Your task to perform on an android device: allow cookies in the chrome app Image 0: 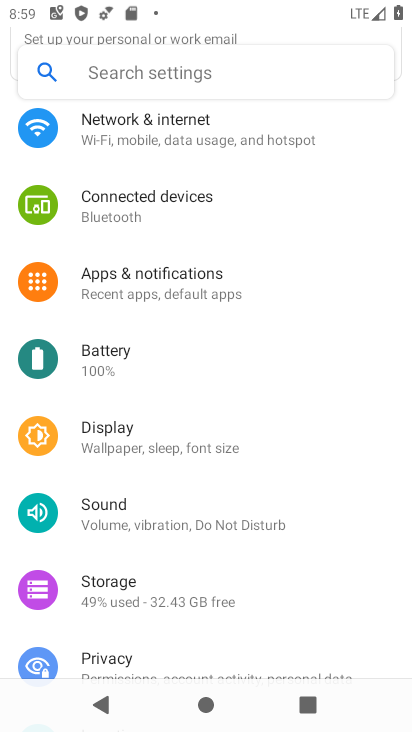
Step 0: press home button
Your task to perform on an android device: allow cookies in the chrome app Image 1: 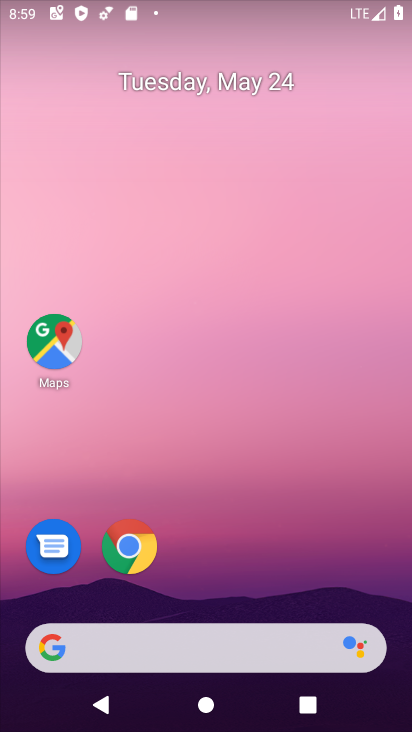
Step 1: click (133, 539)
Your task to perform on an android device: allow cookies in the chrome app Image 2: 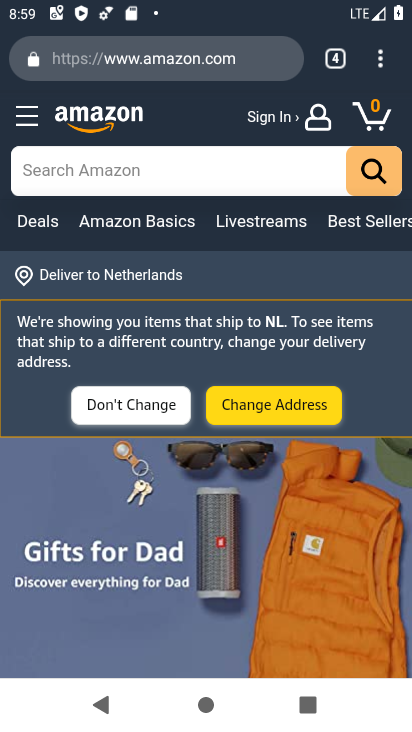
Step 2: click (376, 66)
Your task to perform on an android device: allow cookies in the chrome app Image 3: 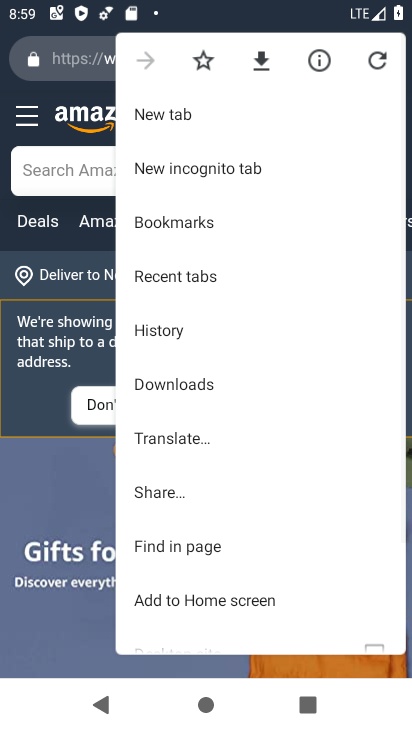
Step 3: drag from (229, 460) to (266, 215)
Your task to perform on an android device: allow cookies in the chrome app Image 4: 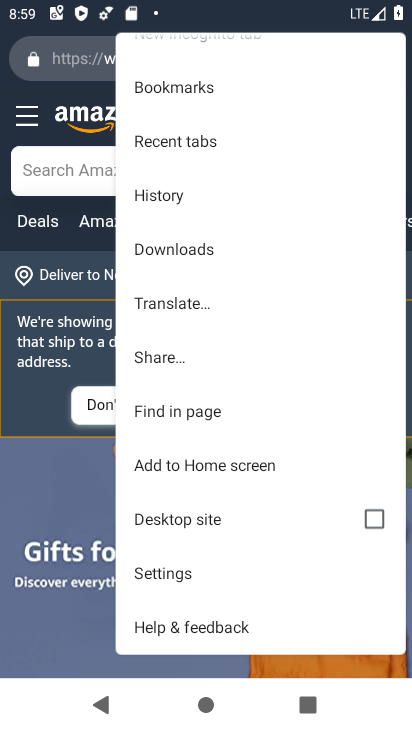
Step 4: click (193, 571)
Your task to perform on an android device: allow cookies in the chrome app Image 5: 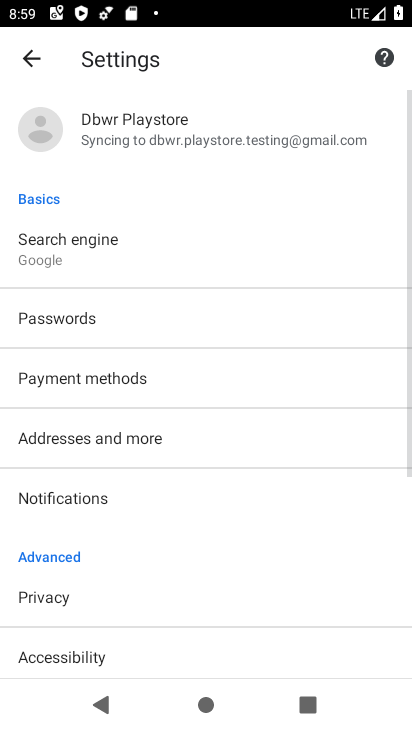
Step 5: drag from (201, 566) to (238, 242)
Your task to perform on an android device: allow cookies in the chrome app Image 6: 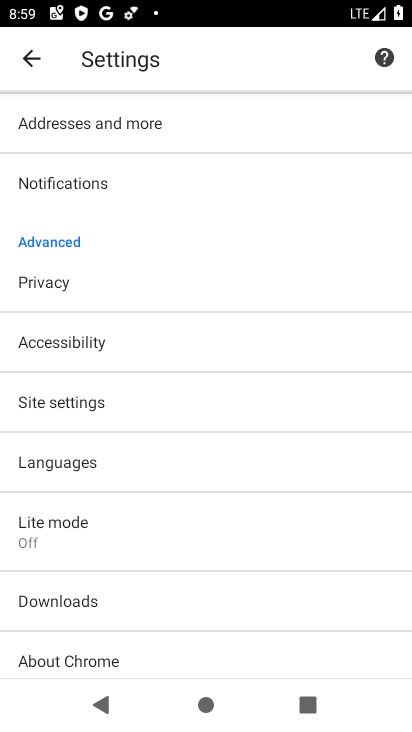
Step 6: click (209, 407)
Your task to perform on an android device: allow cookies in the chrome app Image 7: 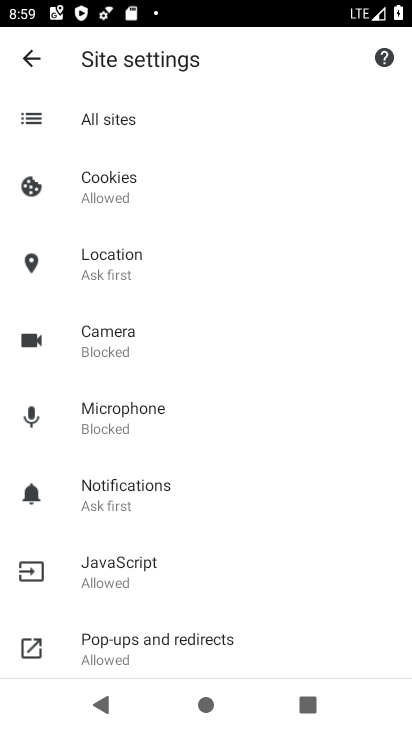
Step 7: click (214, 182)
Your task to perform on an android device: allow cookies in the chrome app Image 8: 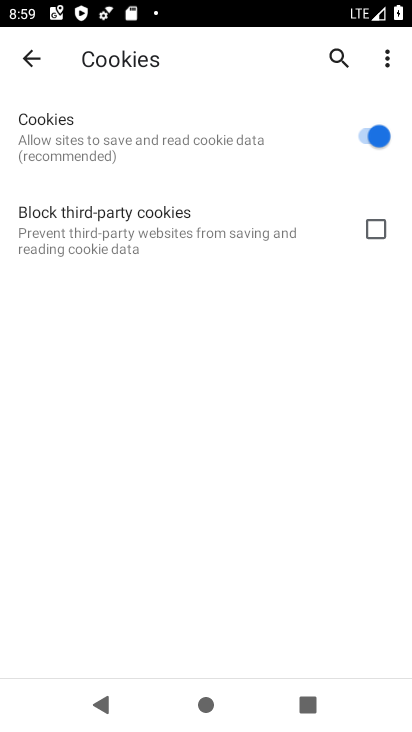
Step 8: task complete